Your task to perform on an android device: turn off translation in the chrome app Image 0: 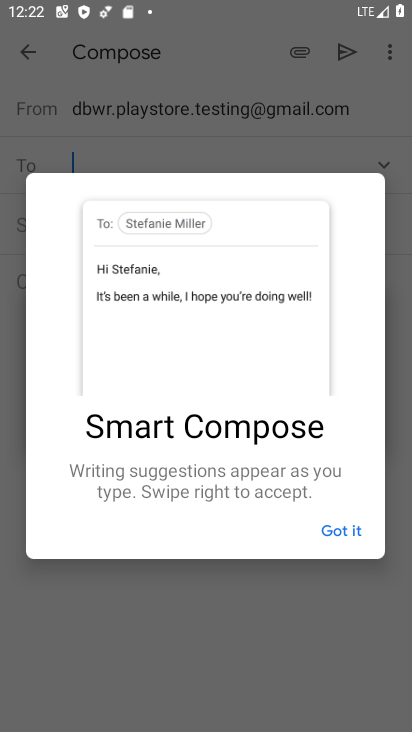
Step 0: press home button
Your task to perform on an android device: turn off translation in the chrome app Image 1: 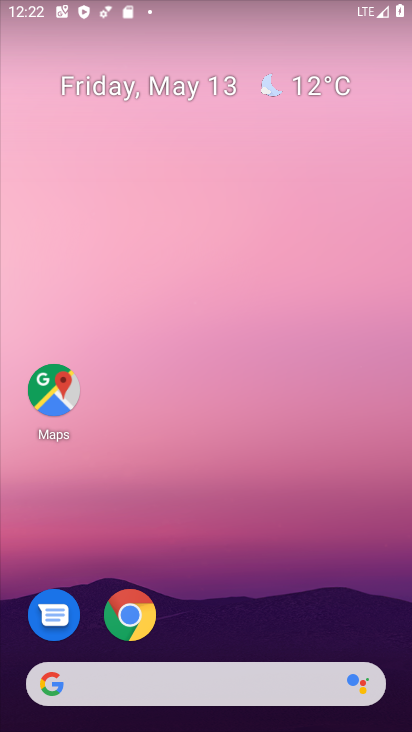
Step 1: click (135, 627)
Your task to perform on an android device: turn off translation in the chrome app Image 2: 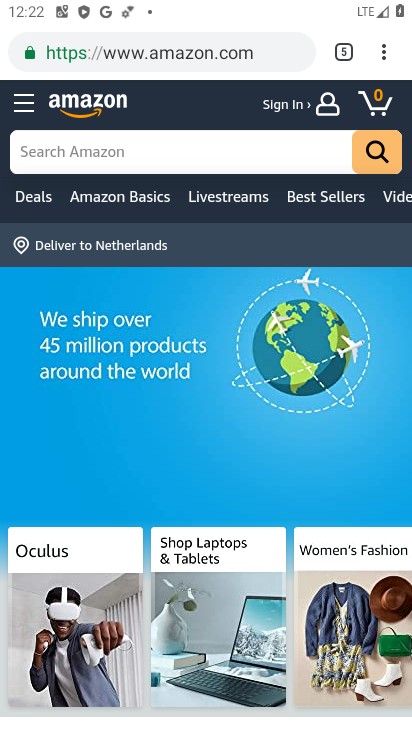
Step 2: drag from (389, 51) to (245, 626)
Your task to perform on an android device: turn off translation in the chrome app Image 3: 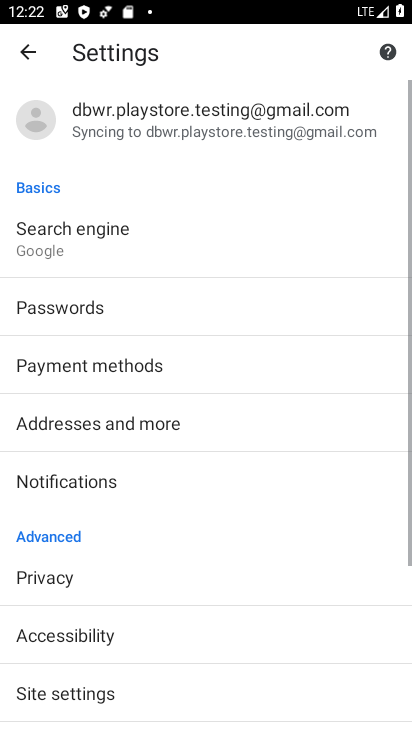
Step 3: drag from (170, 638) to (183, 404)
Your task to perform on an android device: turn off translation in the chrome app Image 4: 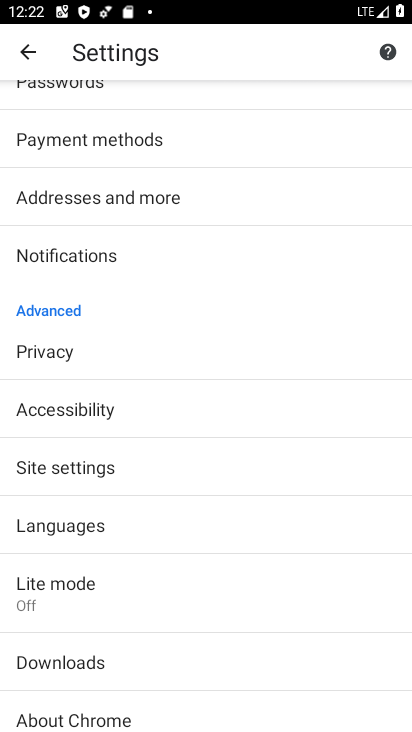
Step 4: click (135, 519)
Your task to perform on an android device: turn off translation in the chrome app Image 5: 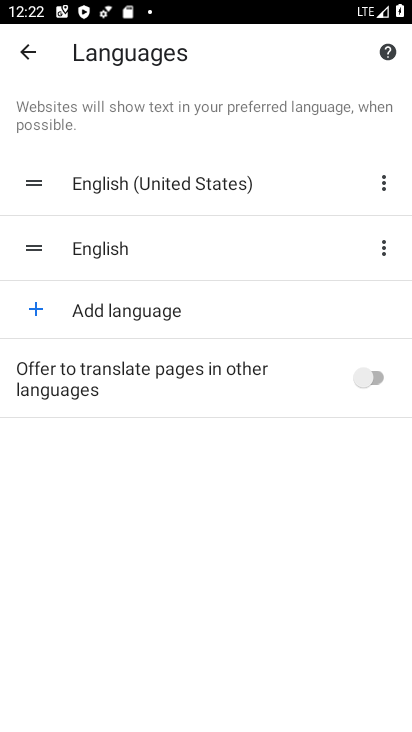
Step 5: task complete